Your task to perform on an android device: open app "Gmail" (install if not already installed) Image 0: 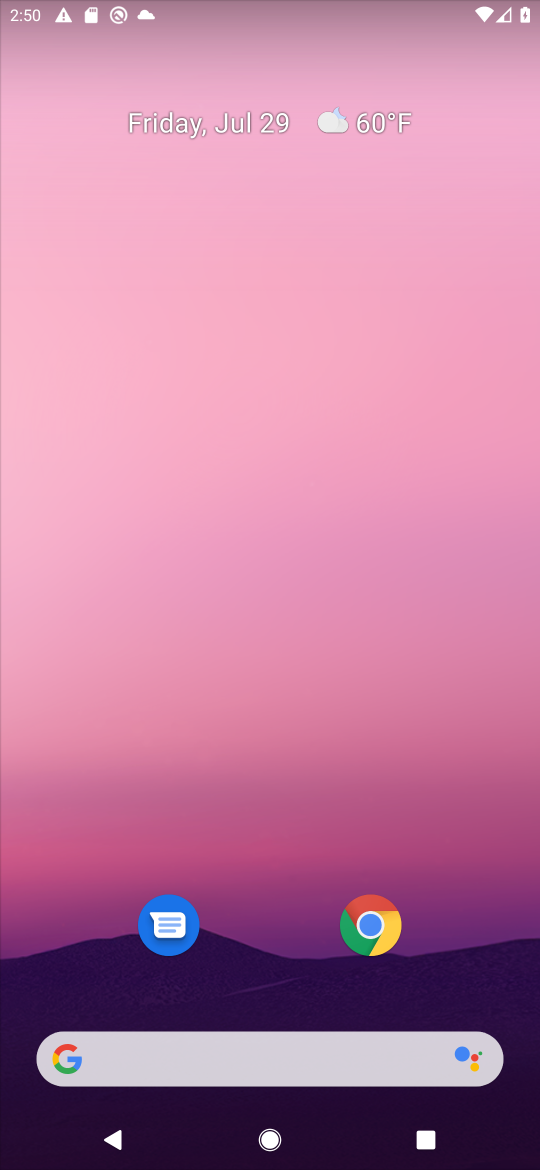
Step 0: drag from (268, 961) to (346, 15)
Your task to perform on an android device: open app "Gmail" (install if not already installed) Image 1: 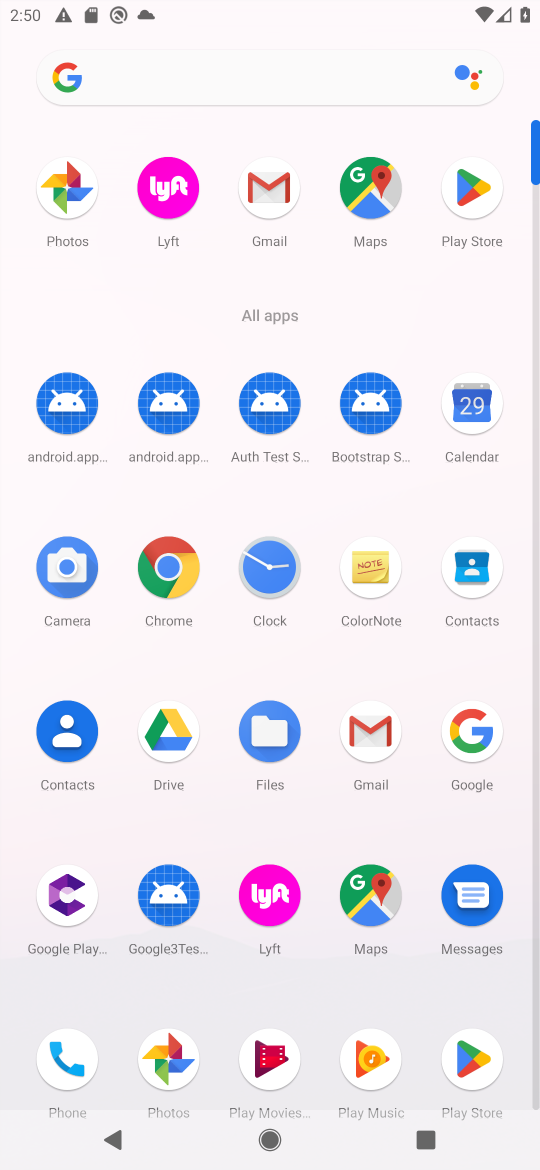
Step 1: click (264, 222)
Your task to perform on an android device: open app "Gmail" (install if not already installed) Image 2: 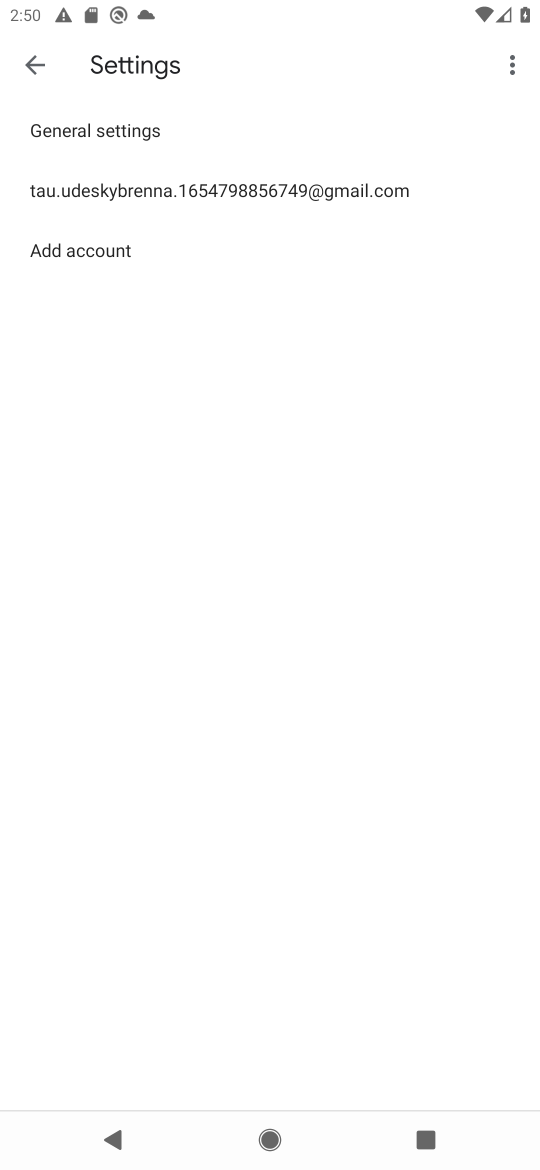
Step 2: task complete